Your task to perform on an android device: Open calendar and show me the first week of next month Image 0: 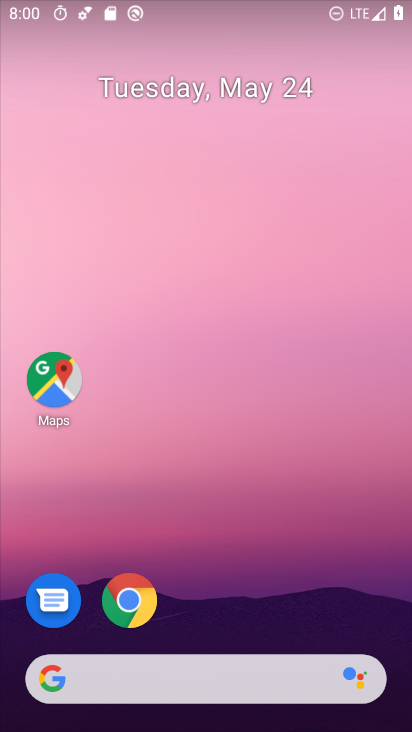
Step 0: drag from (249, 612) to (267, 49)
Your task to perform on an android device: Open calendar and show me the first week of next month Image 1: 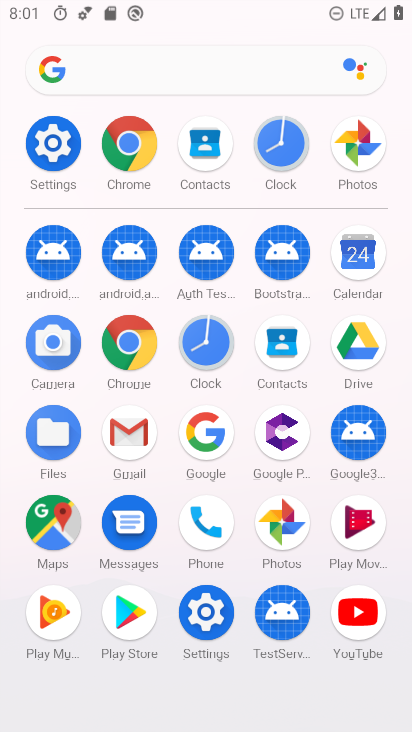
Step 1: click (361, 256)
Your task to perform on an android device: Open calendar and show me the first week of next month Image 2: 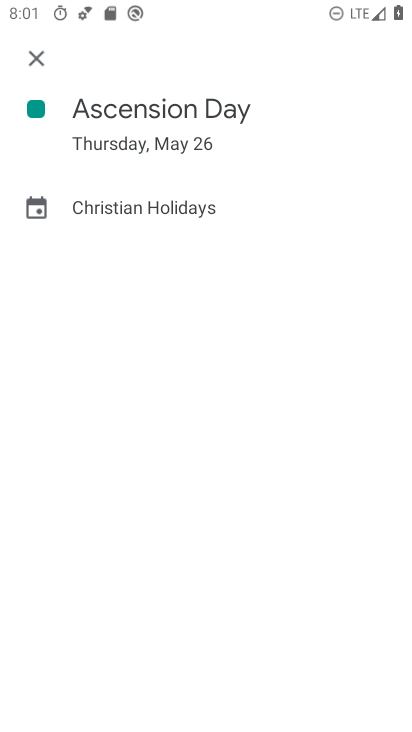
Step 2: click (46, 47)
Your task to perform on an android device: Open calendar and show me the first week of next month Image 3: 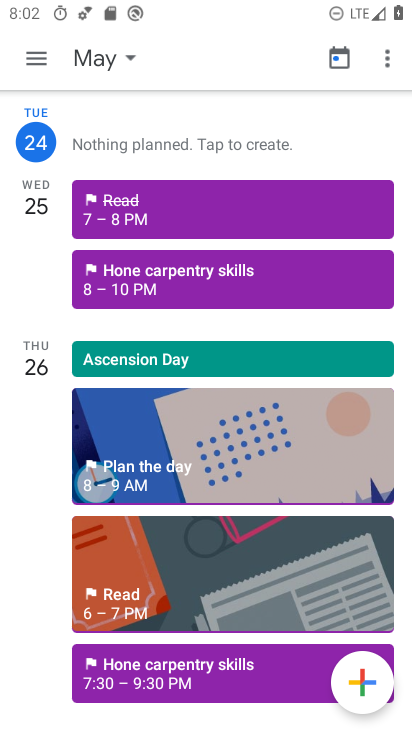
Step 3: click (132, 58)
Your task to perform on an android device: Open calendar and show me the first week of next month Image 4: 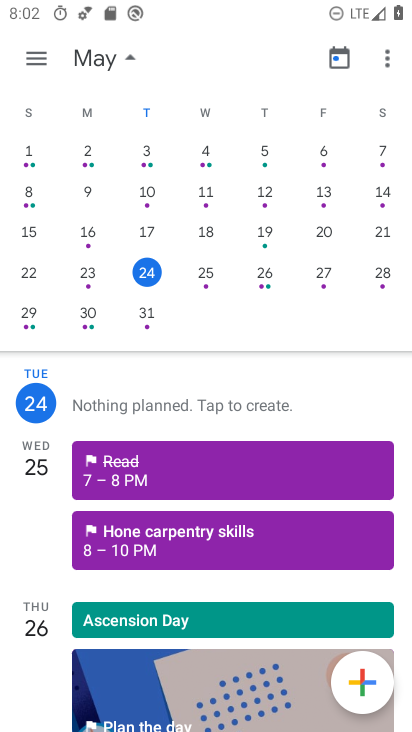
Step 4: drag from (361, 246) to (13, 207)
Your task to perform on an android device: Open calendar and show me the first week of next month Image 5: 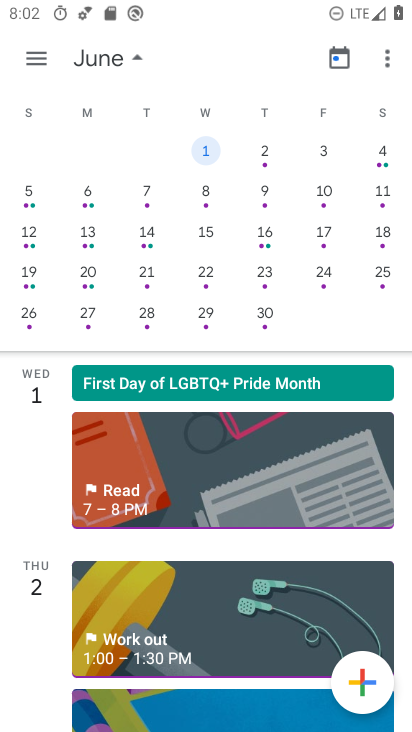
Step 5: click (206, 151)
Your task to perform on an android device: Open calendar and show me the first week of next month Image 6: 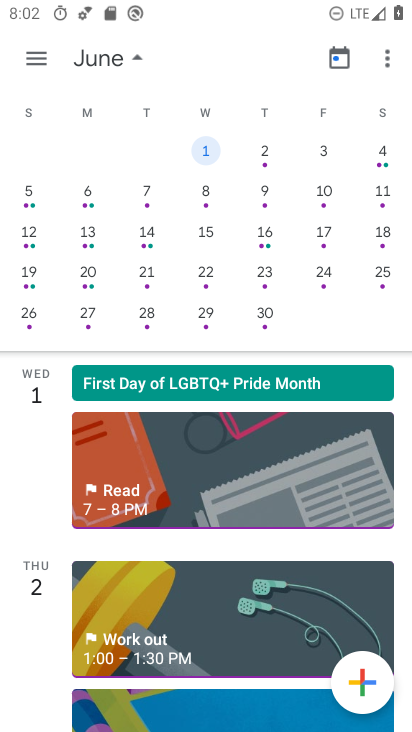
Step 6: task complete